Your task to perform on an android device: Open Amazon Image 0: 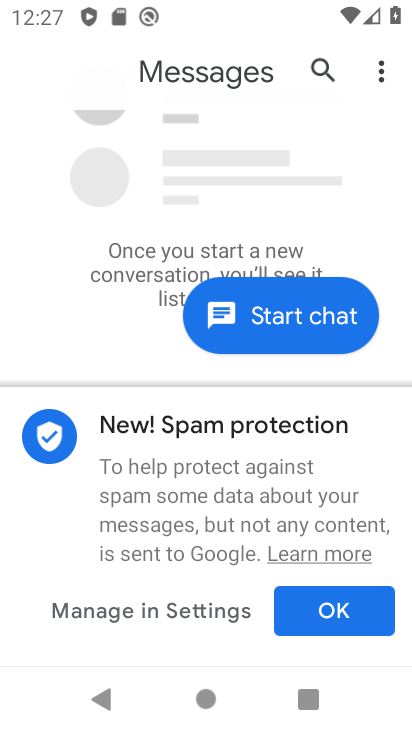
Step 0: press home button
Your task to perform on an android device: Open Amazon Image 1: 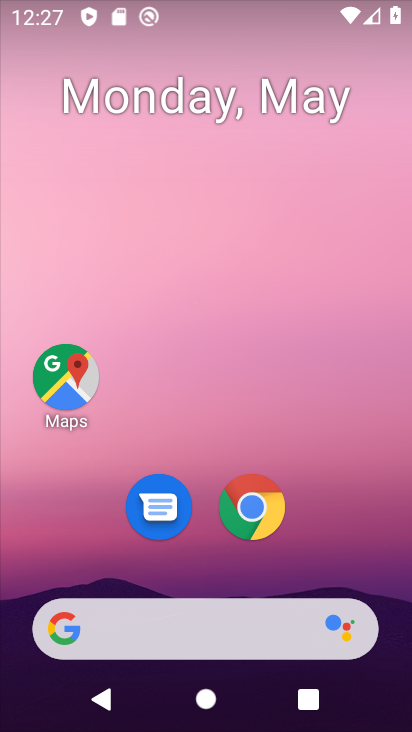
Step 1: click (256, 514)
Your task to perform on an android device: Open Amazon Image 2: 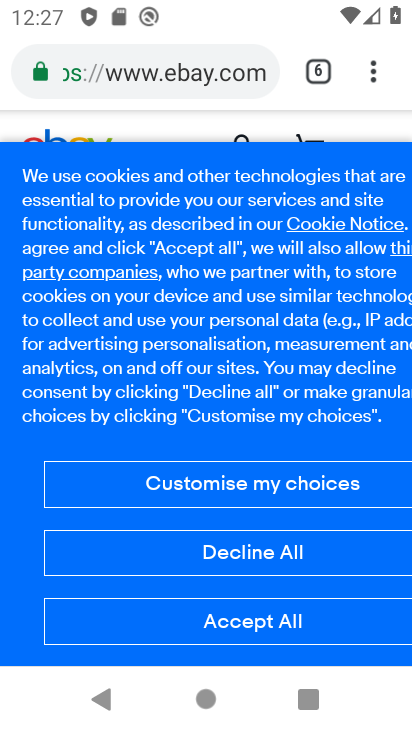
Step 2: click (372, 74)
Your task to perform on an android device: Open Amazon Image 3: 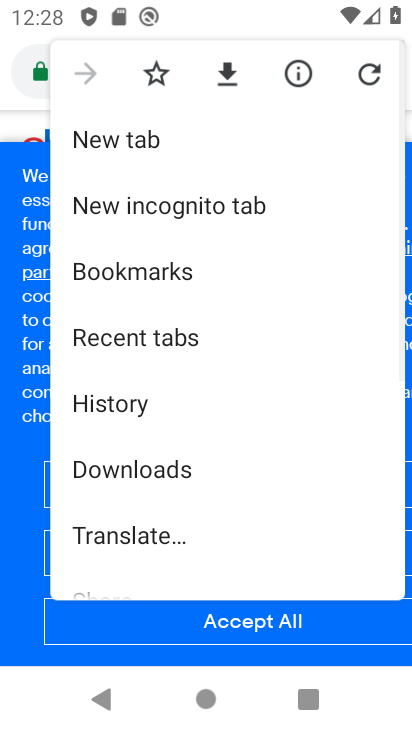
Step 3: click (122, 138)
Your task to perform on an android device: Open Amazon Image 4: 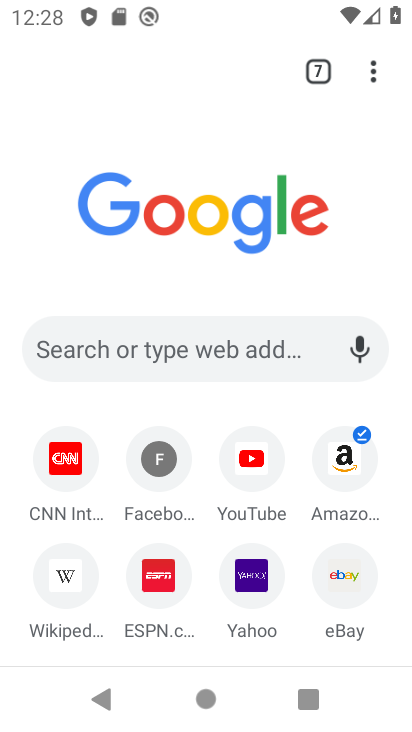
Step 4: click (344, 487)
Your task to perform on an android device: Open Amazon Image 5: 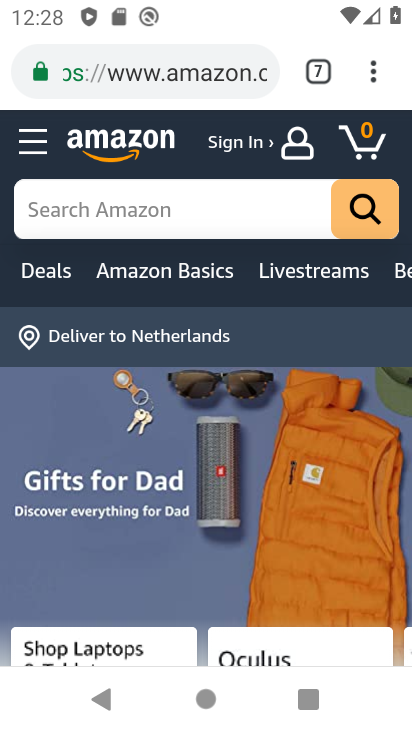
Step 5: task complete